Your task to perform on an android device: Play the last video I watched on Youtube Image 0: 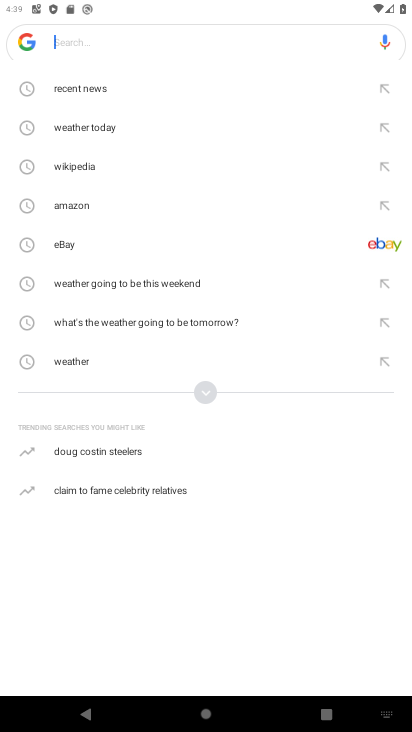
Step 0: press home button
Your task to perform on an android device: Play the last video I watched on Youtube Image 1: 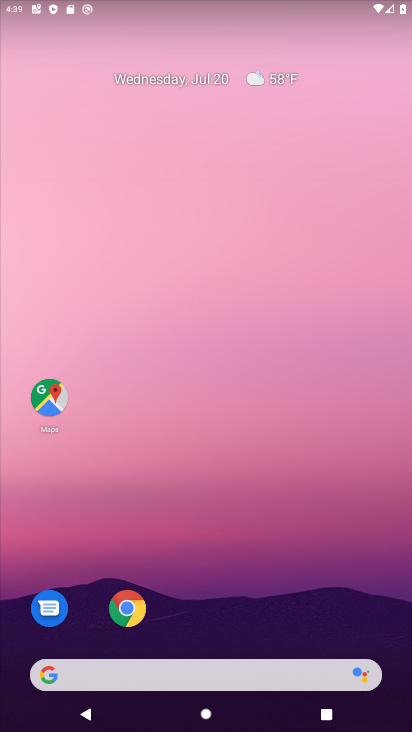
Step 1: drag from (195, 619) to (178, 237)
Your task to perform on an android device: Play the last video I watched on Youtube Image 2: 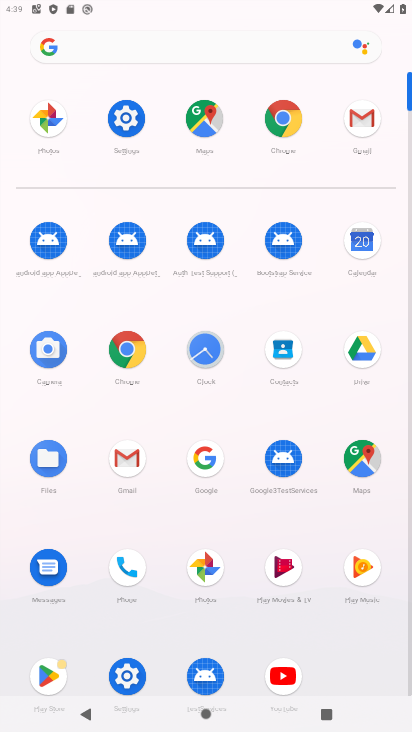
Step 2: click (287, 666)
Your task to perform on an android device: Play the last video I watched on Youtube Image 3: 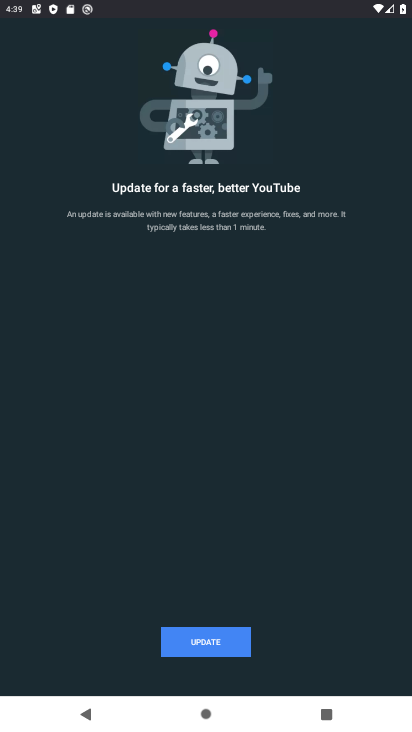
Step 3: click (210, 652)
Your task to perform on an android device: Play the last video I watched on Youtube Image 4: 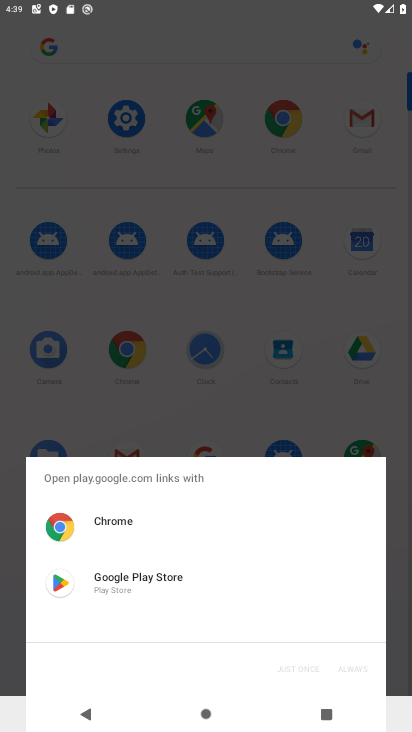
Step 4: click (172, 592)
Your task to perform on an android device: Play the last video I watched on Youtube Image 5: 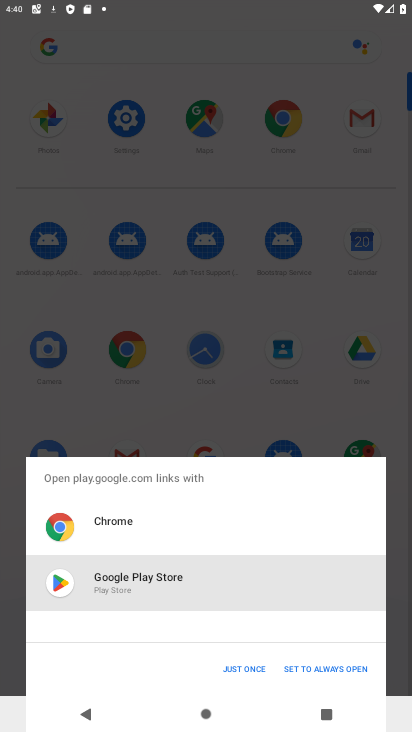
Step 5: click (235, 670)
Your task to perform on an android device: Play the last video I watched on Youtube Image 6: 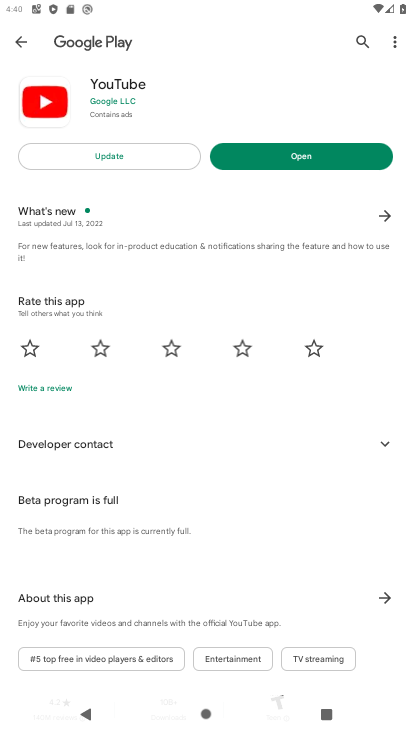
Step 6: click (103, 150)
Your task to perform on an android device: Play the last video I watched on Youtube Image 7: 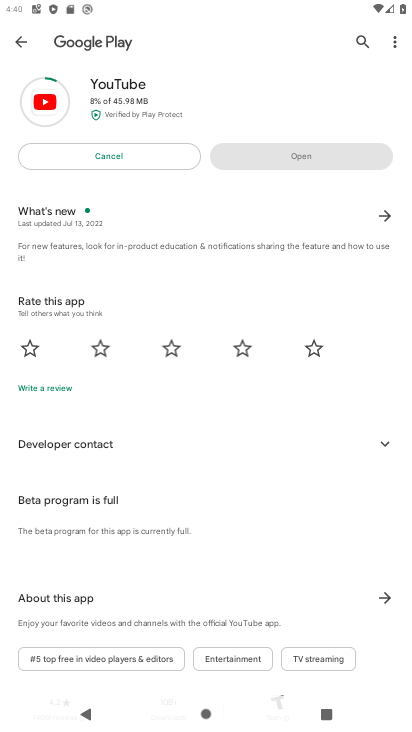
Step 7: task complete